Your task to perform on an android device: set the timer Image 0: 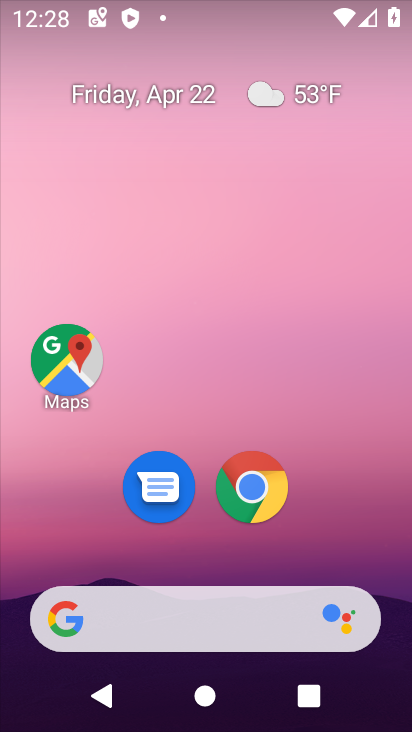
Step 0: drag from (350, 523) to (327, 429)
Your task to perform on an android device: set the timer Image 1: 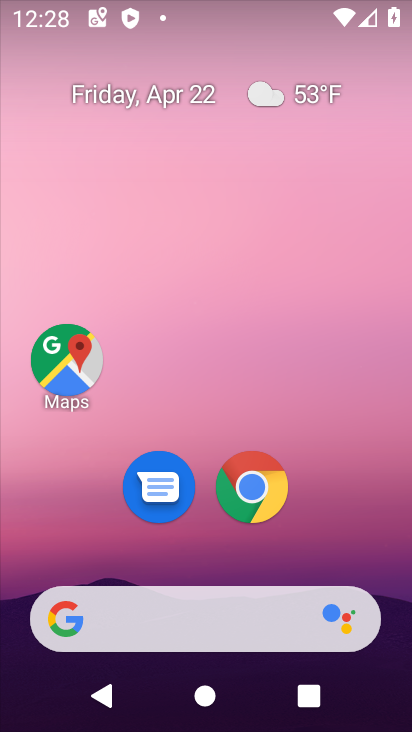
Step 1: drag from (377, 525) to (342, 83)
Your task to perform on an android device: set the timer Image 2: 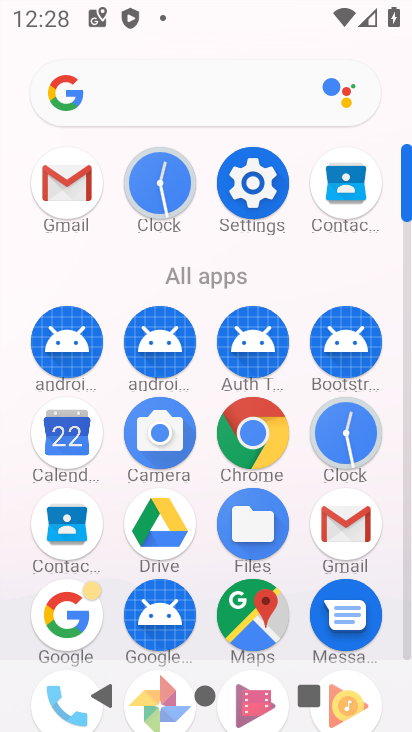
Step 2: click (172, 181)
Your task to perform on an android device: set the timer Image 3: 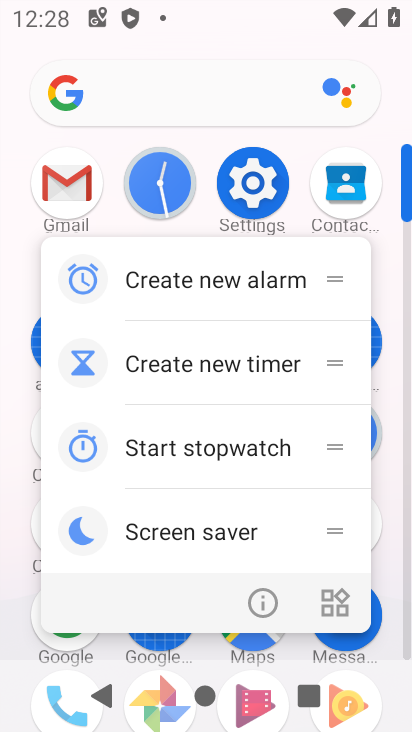
Step 3: click (170, 174)
Your task to perform on an android device: set the timer Image 4: 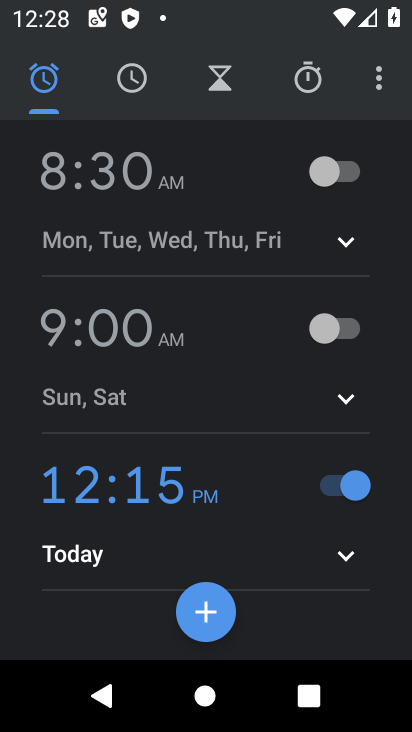
Step 4: click (227, 73)
Your task to perform on an android device: set the timer Image 5: 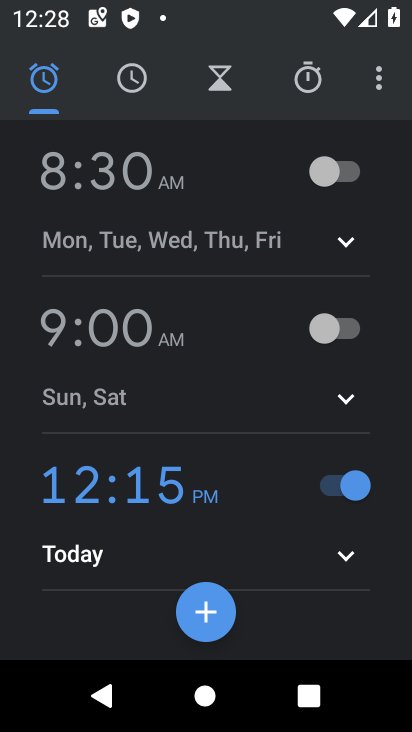
Step 5: click (214, 75)
Your task to perform on an android device: set the timer Image 6: 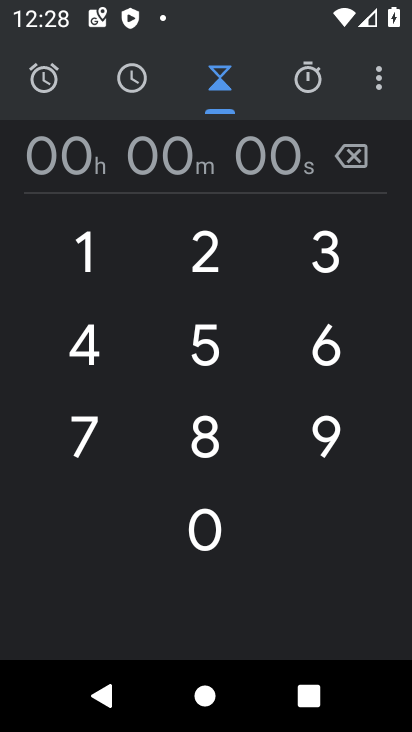
Step 6: click (91, 253)
Your task to perform on an android device: set the timer Image 7: 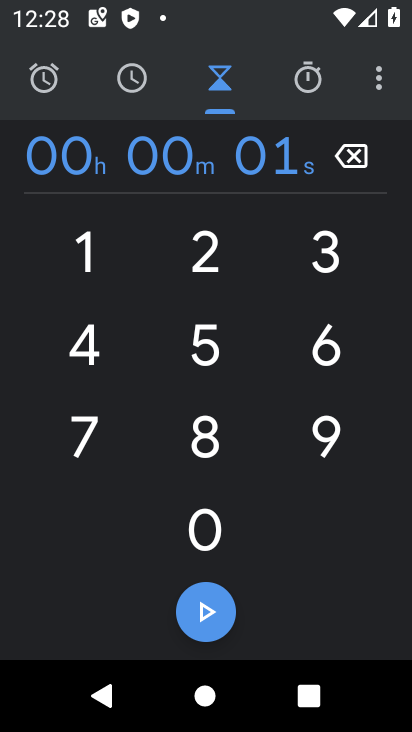
Step 7: click (91, 253)
Your task to perform on an android device: set the timer Image 8: 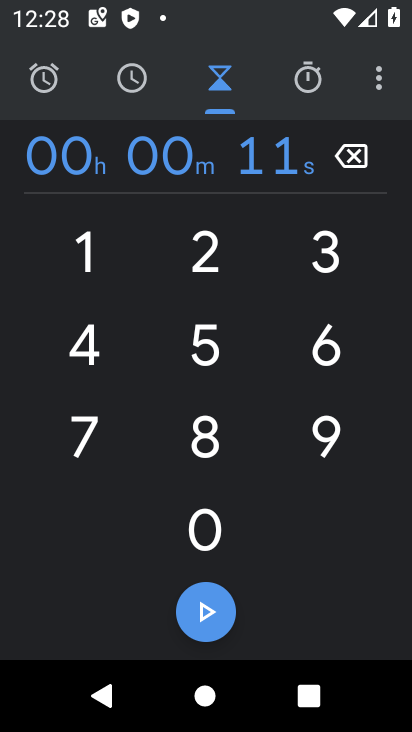
Step 8: task complete